Your task to perform on an android device: What is the recent news? Image 0: 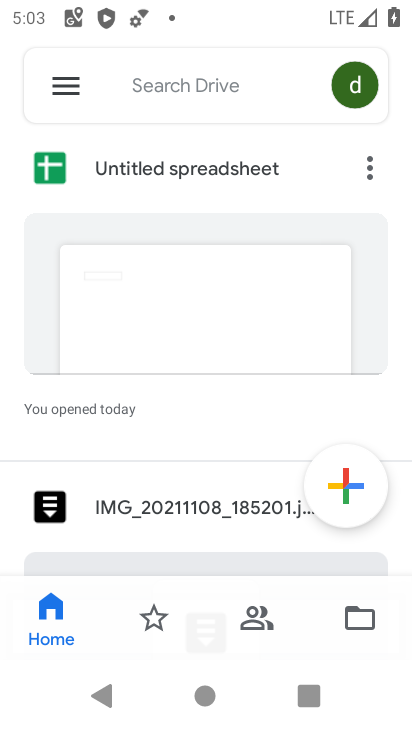
Step 0: press home button
Your task to perform on an android device: What is the recent news? Image 1: 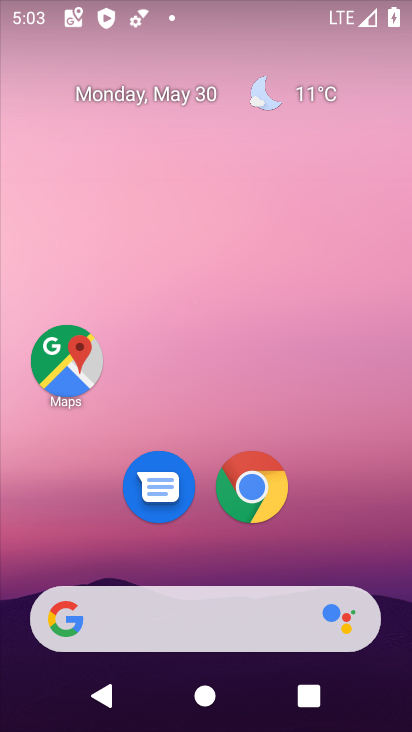
Step 1: task complete